Your task to perform on an android device: turn on data saver in the chrome app Image 0: 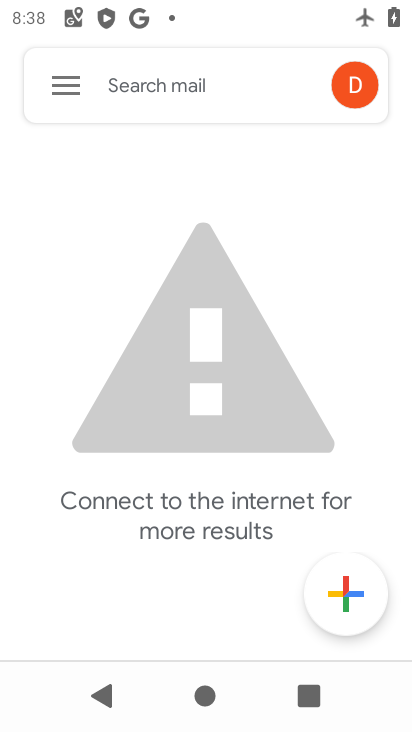
Step 0: press home button
Your task to perform on an android device: turn on data saver in the chrome app Image 1: 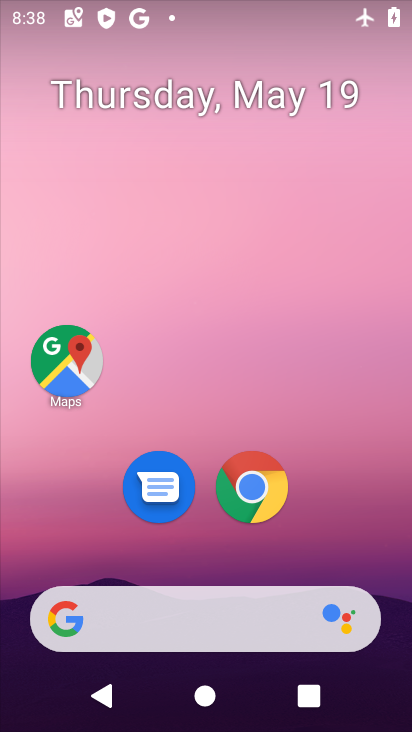
Step 1: click (243, 494)
Your task to perform on an android device: turn on data saver in the chrome app Image 2: 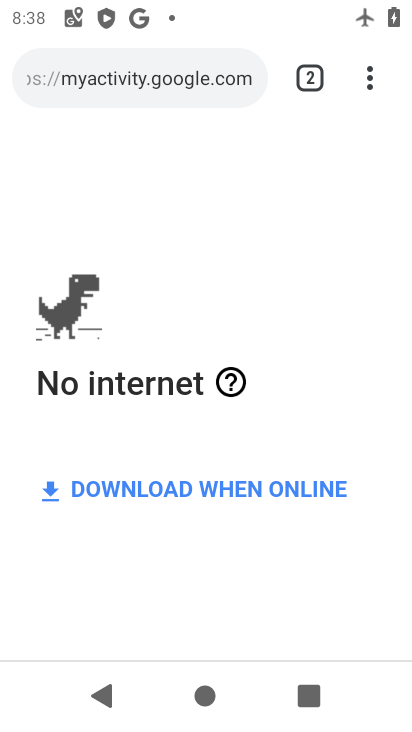
Step 2: drag from (366, 80) to (66, 554)
Your task to perform on an android device: turn on data saver in the chrome app Image 3: 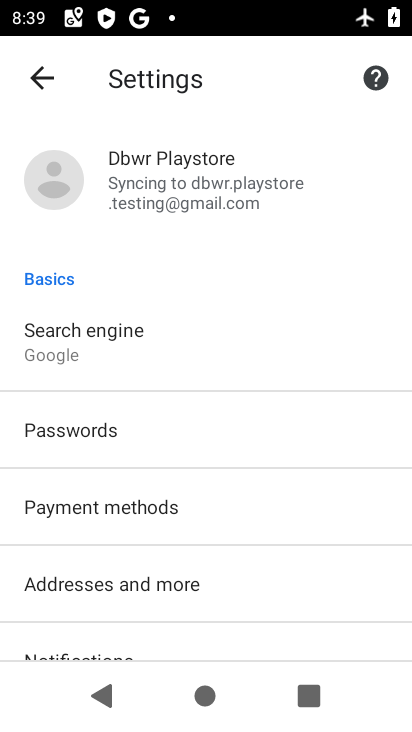
Step 3: drag from (185, 502) to (167, 72)
Your task to perform on an android device: turn on data saver in the chrome app Image 4: 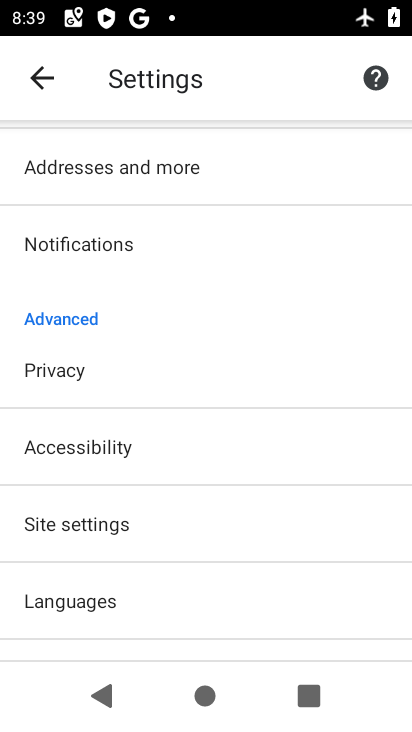
Step 4: drag from (196, 552) to (148, 141)
Your task to perform on an android device: turn on data saver in the chrome app Image 5: 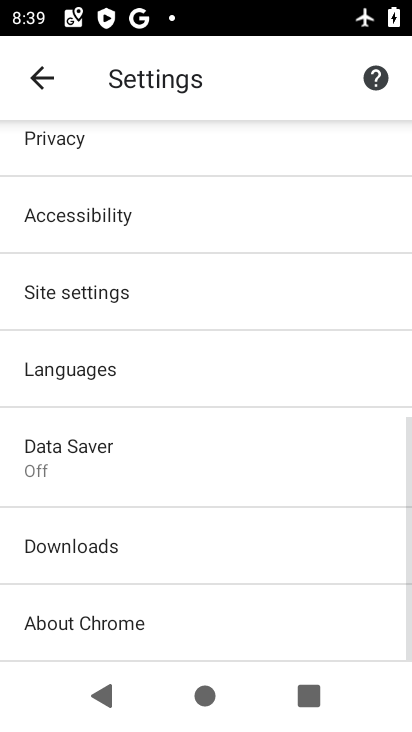
Step 5: drag from (103, 640) to (89, 489)
Your task to perform on an android device: turn on data saver in the chrome app Image 6: 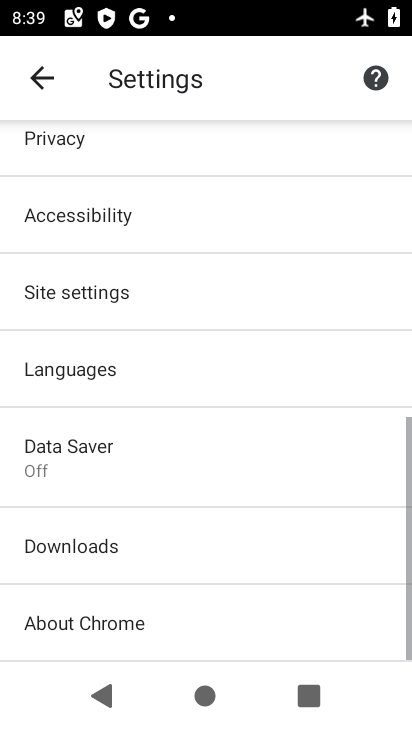
Step 6: click (82, 461)
Your task to perform on an android device: turn on data saver in the chrome app Image 7: 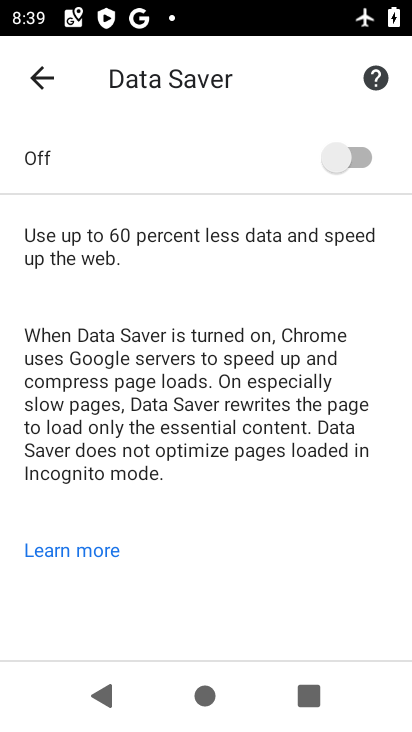
Step 7: click (349, 170)
Your task to perform on an android device: turn on data saver in the chrome app Image 8: 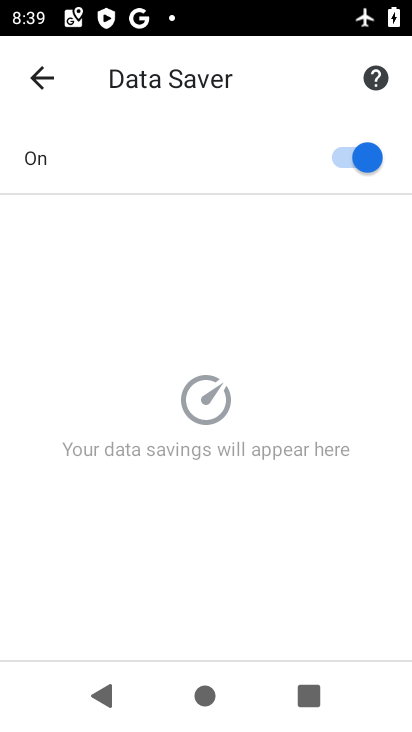
Step 8: task complete